Your task to perform on an android device: Open calendar and show me the second week of next month Image 0: 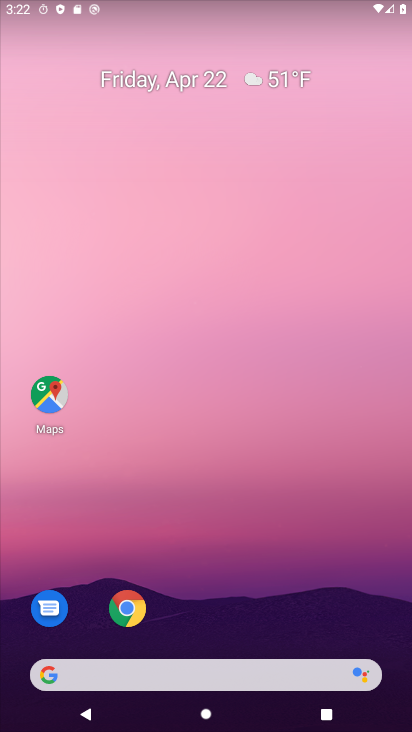
Step 0: drag from (300, 385) to (268, 1)
Your task to perform on an android device: Open calendar and show me the second week of next month Image 1: 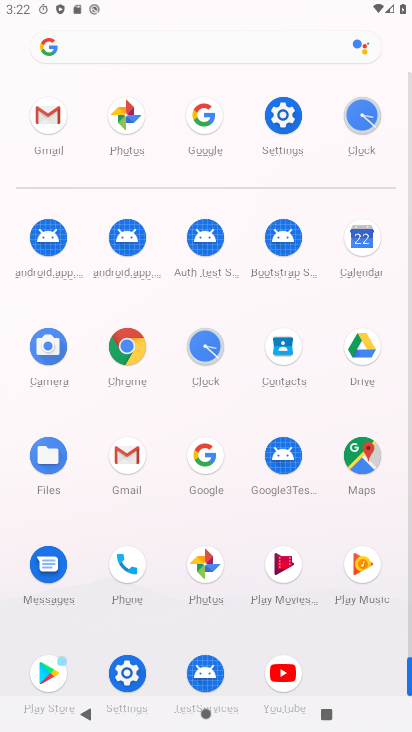
Step 1: click (369, 237)
Your task to perform on an android device: Open calendar and show me the second week of next month Image 2: 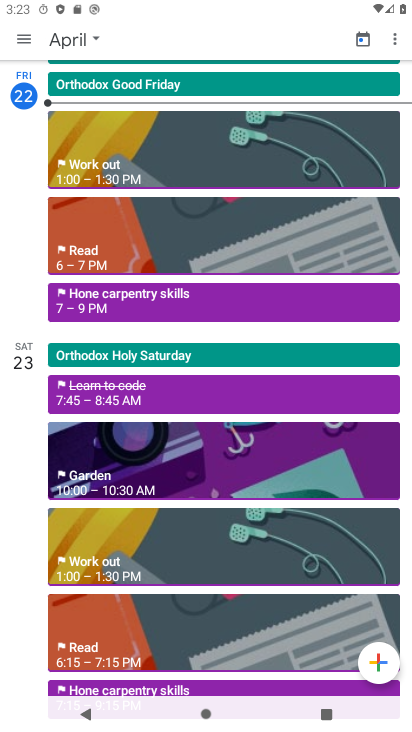
Step 2: click (21, 37)
Your task to perform on an android device: Open calendar and show me the second week of next month Image 3: 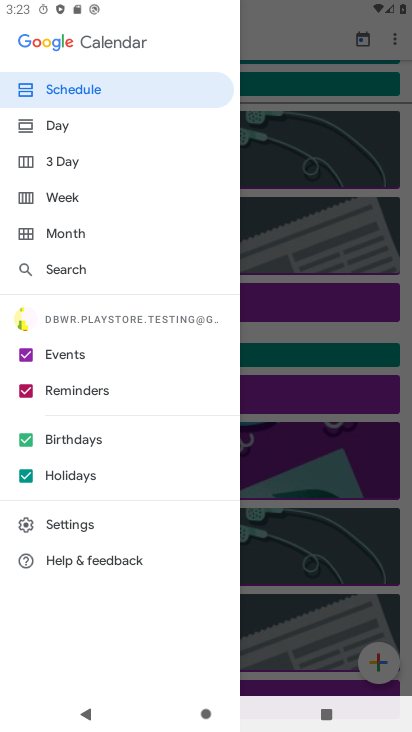
Step 3: click (68, 198)
Your task to perform on an android device: Open calendar and show me the second week of next month Image 4: 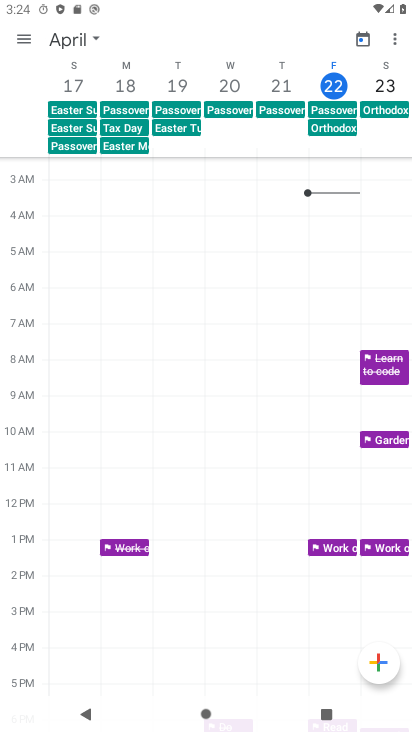
Step 4: click (89, 34)
Your task to perform on an android device: Open calendar and show me the second week of next month Image 5: 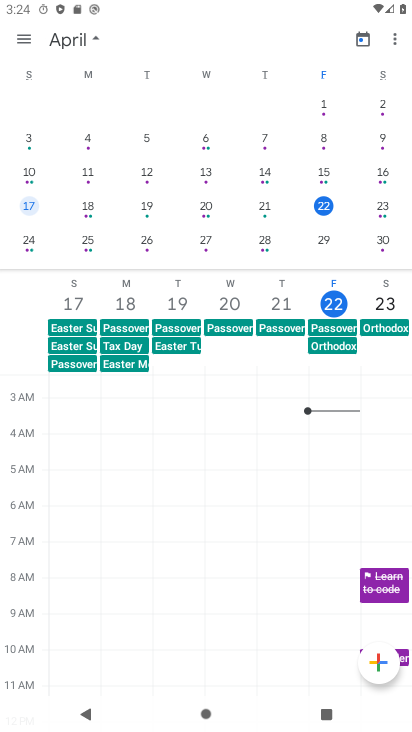
Step 5: drag from (403, 167) to (0, 164)
Your task to perform on an android device: Open calendar and show me the second week of next month Image 6: 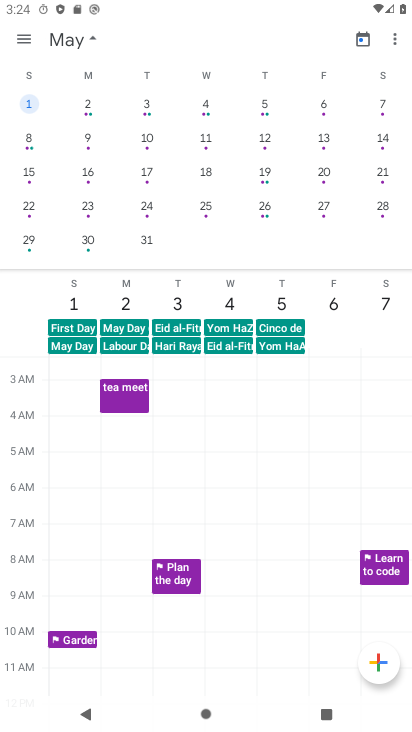
Step 6: click (27, 139)
Your task to perform on an android device: Open calendar and show me the second week of next month Image 7: 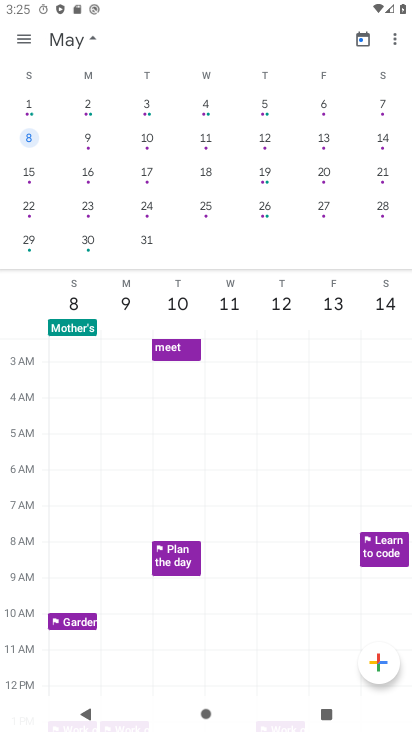
Step 7: task complete